Your task to perform on an android device: Search for bose quietcomfort 35 on ebay.com, select the first entry, add it to the cart, then select checkout. Image 0: 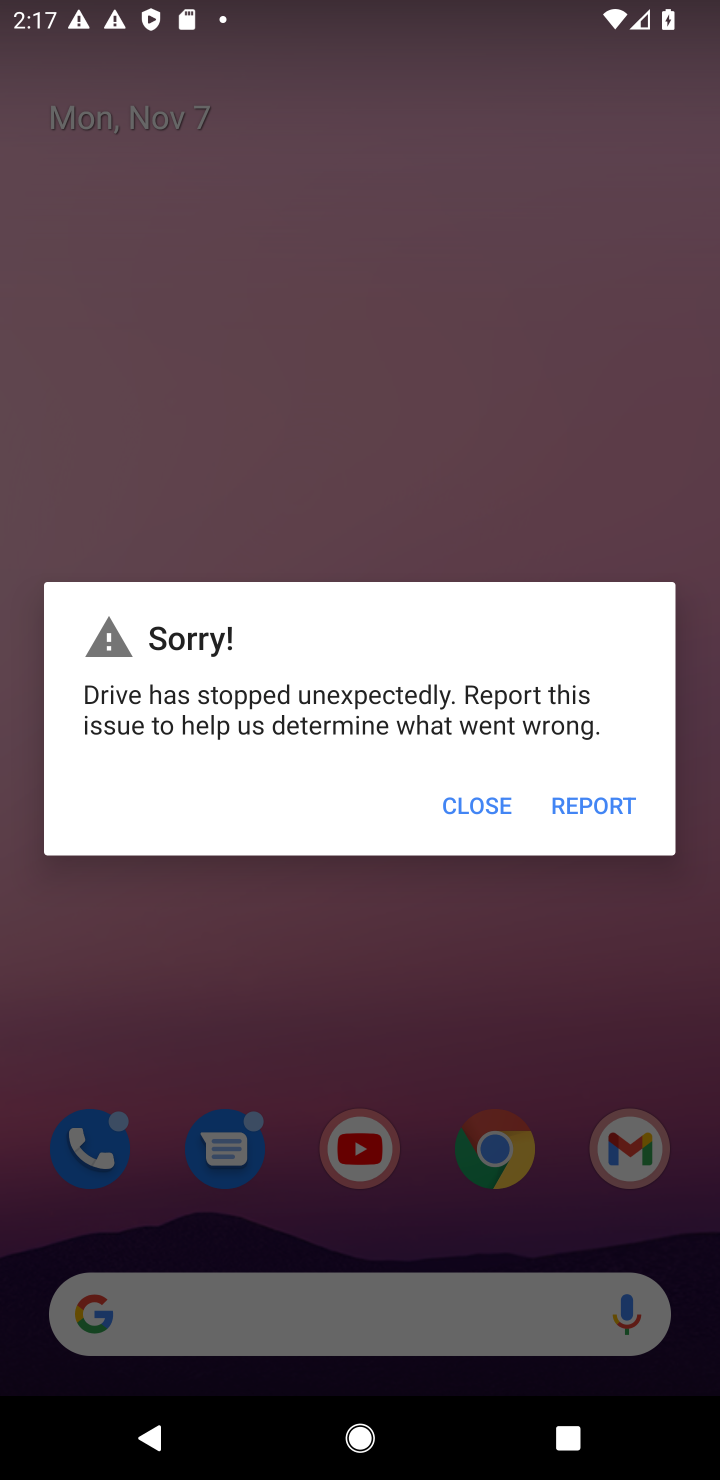
Step 0: click (468, 799)
Your task to perform on an android device: Search for bose quietcomfort 35 on ebay.com, select the first entry, add it to the cart, then select checkout. Image 1: 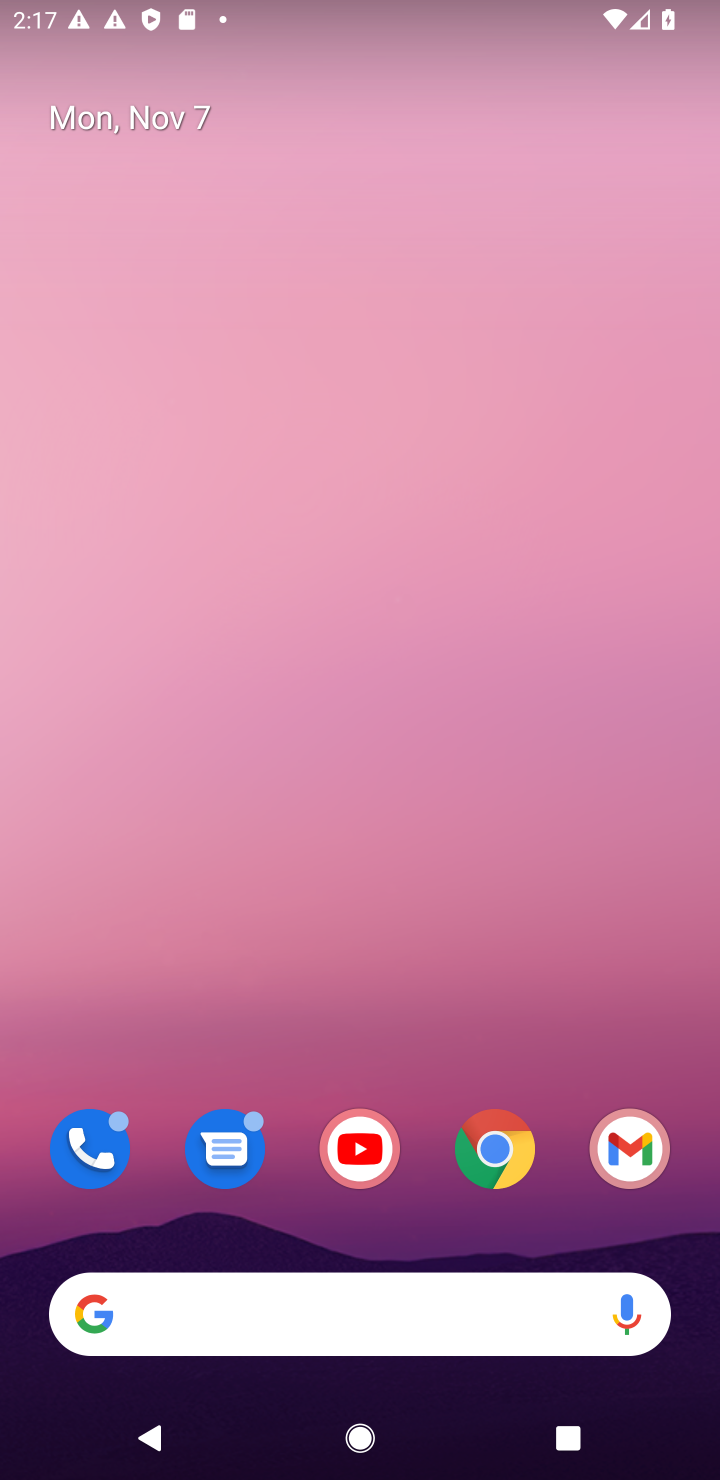
Step 1: click (510, 1152)
Your task to perform on an android device: Search for bose quietcomfort 35 on ebay.com, select the first entry, add it to the cart, then select checkout. Image 2: 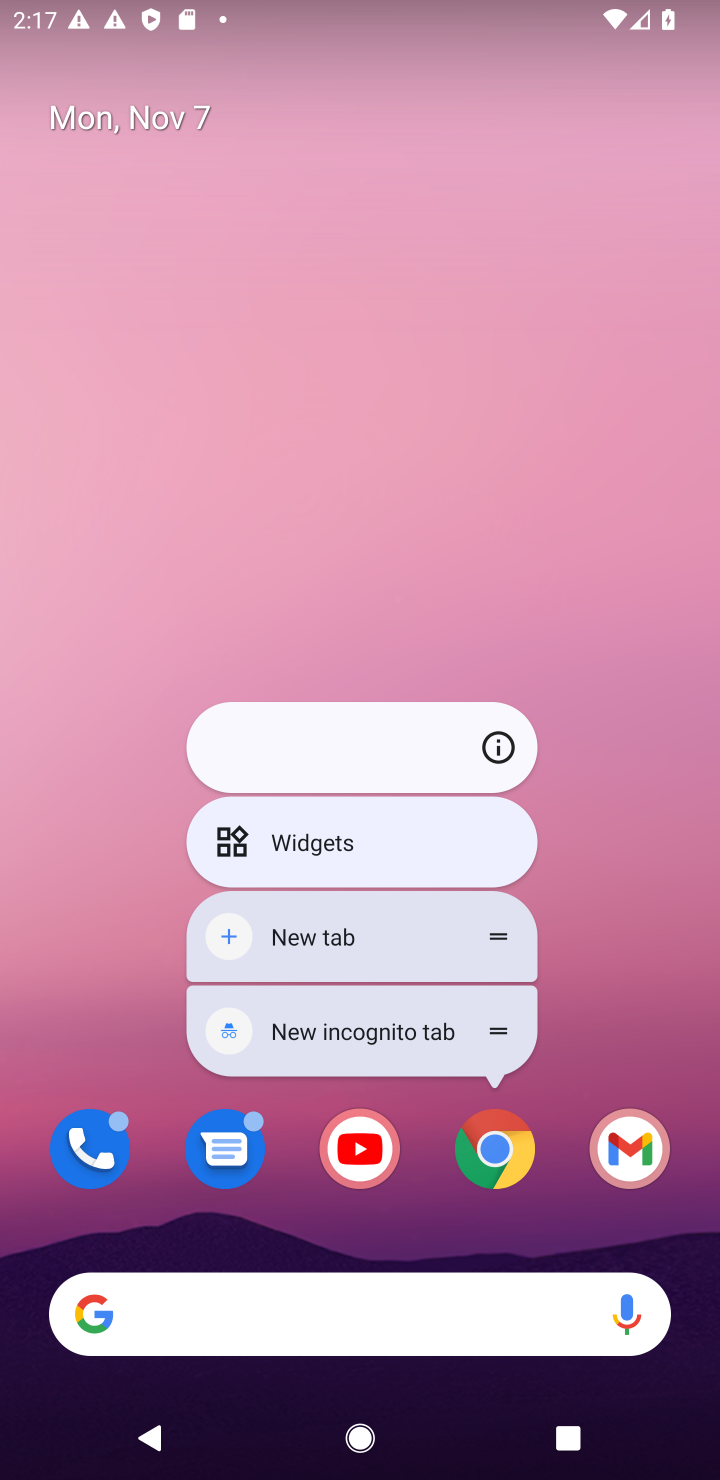
Step 2: click (502, 1149)
Your task to perform on an android device: Search for bose quietcomfort 35 on ebay.com, select the first entry, add it to the cart, then select checkout. Image 3: 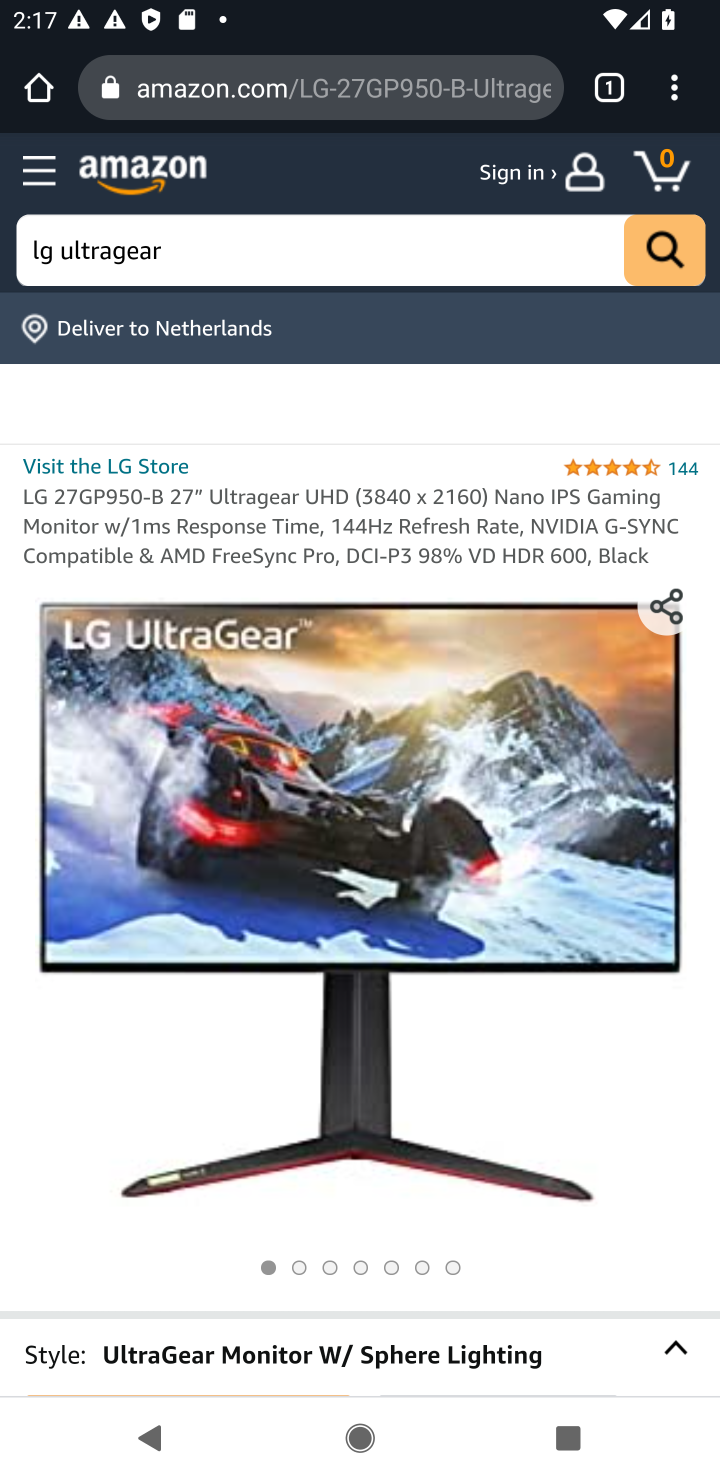
Step 3: click (266, 94)
Your task to perform on an android device: Search for bose quietcomfort 35 on ebay.com, select the first entry, add it to the cart, then select checkout. Image 4: 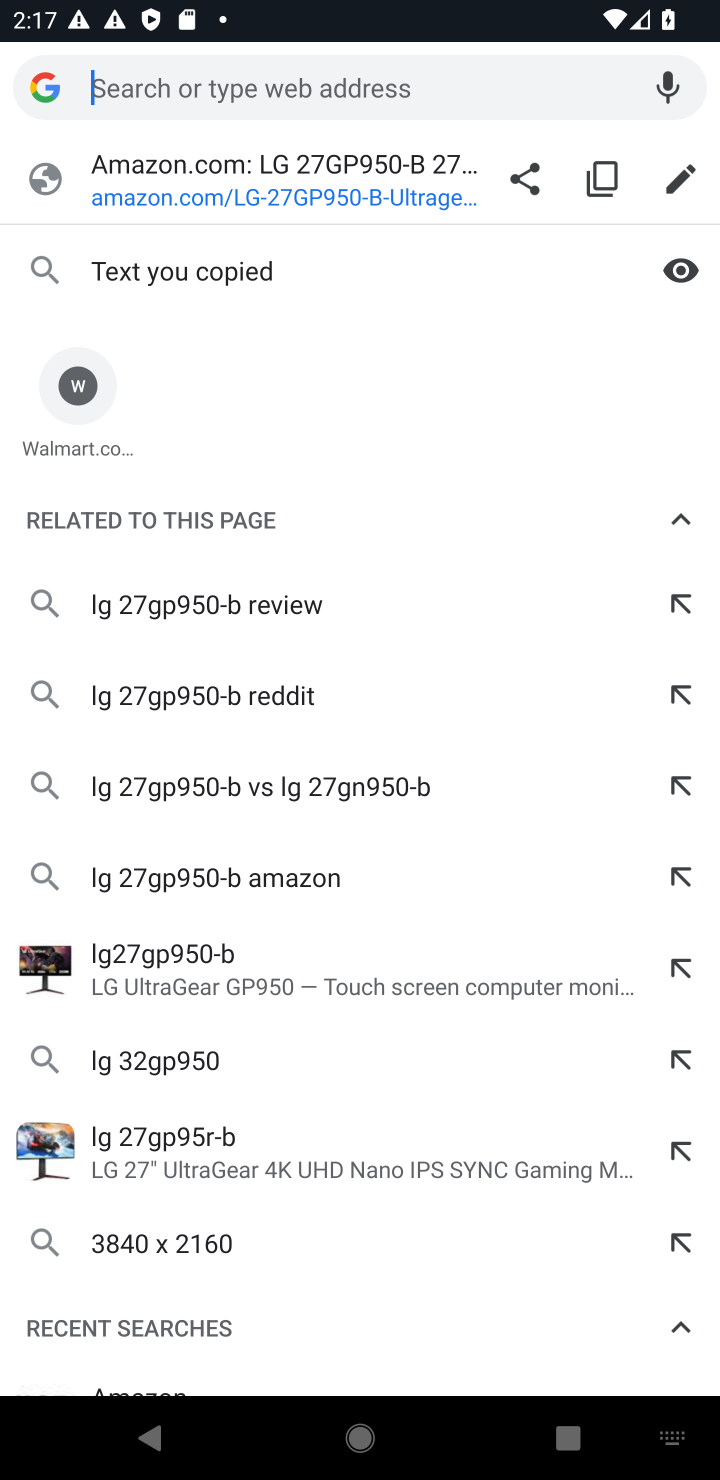
Step 4: type "ebay.com"
Your task to perform on an android device: Search for bose quietcomfort 35 on ebay.com, select the first entry, add it to the cart, then select checkout. Image 5: 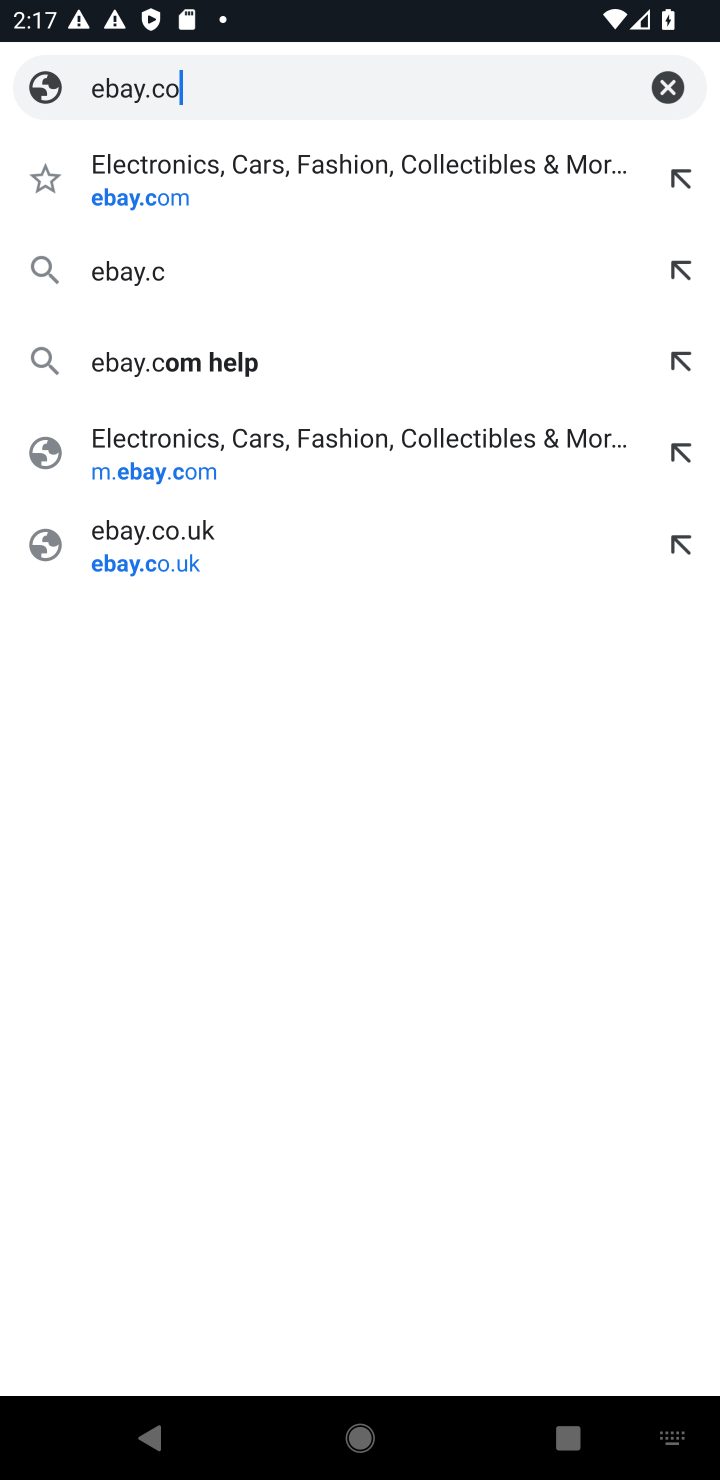
Step 5: type ""
Your task to perform on an android device: Search for bose quietcomfort 35 on ebay.com, select the first entry, add it to the cart, then select checkout. Image 6: 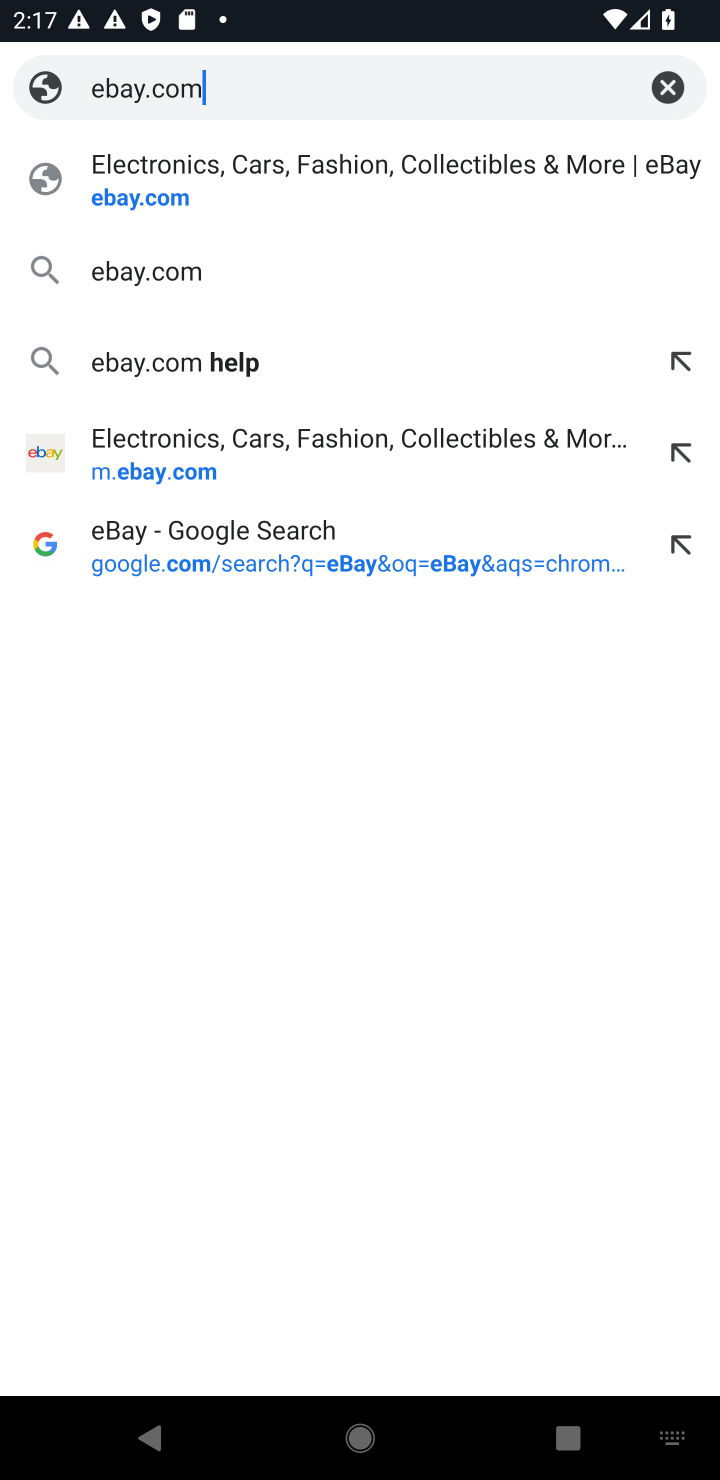
Step 6: click (155, 427)
Your task to perform on an android device: Search for bose quietcomfort 35 on ebay.com, select the first entry, add it to the cart, then select checkout. Image 7: 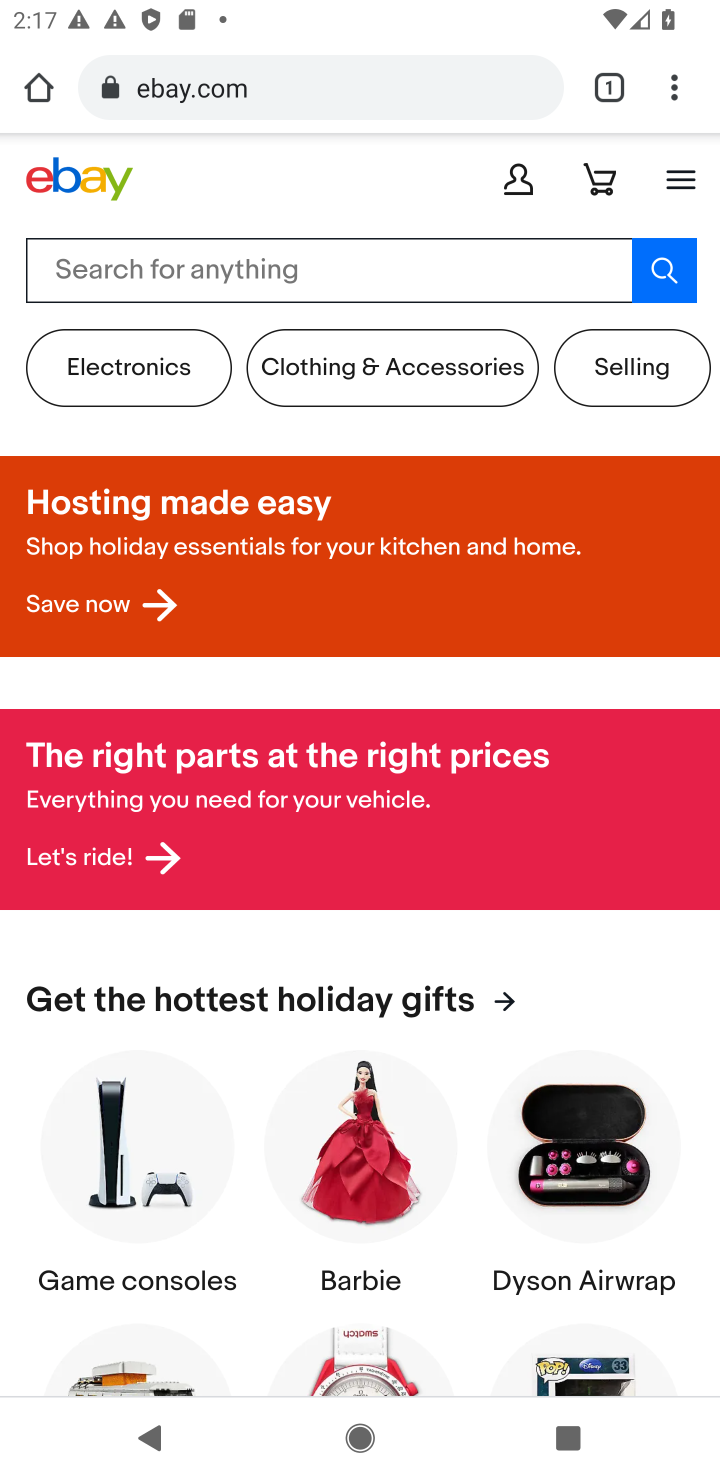
Step 7: click (178, 273)
Your task to perform on an android device: Search for bose quietcomfort 35 on ebay.com, select the first entry, add it to the cart, then select checkout. Image 8: 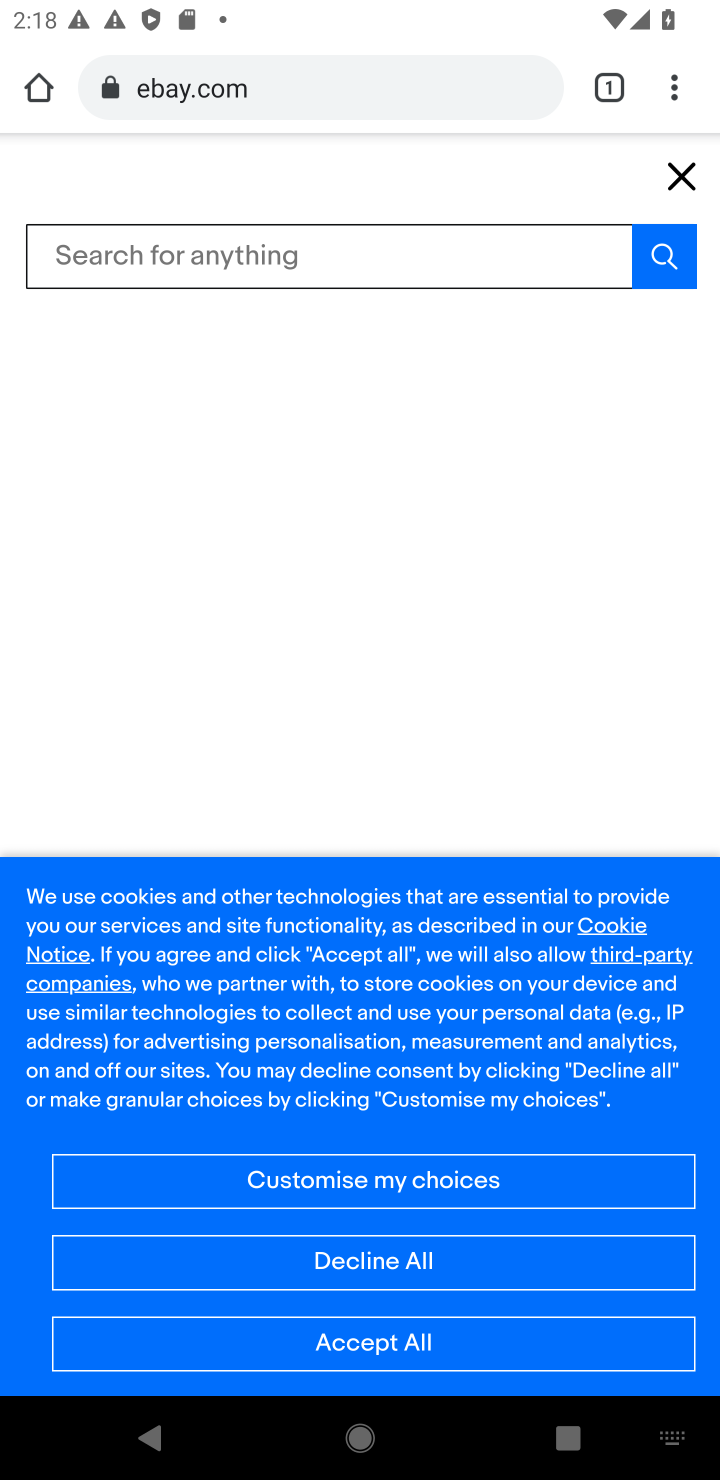
Step 8: type "bose quietcomfort 35 "
Your task to perform on an android device: Search for bose quietcomfort 35 on ebay.com, select the first entry, add it to the cart, then select checkout. Image 9: 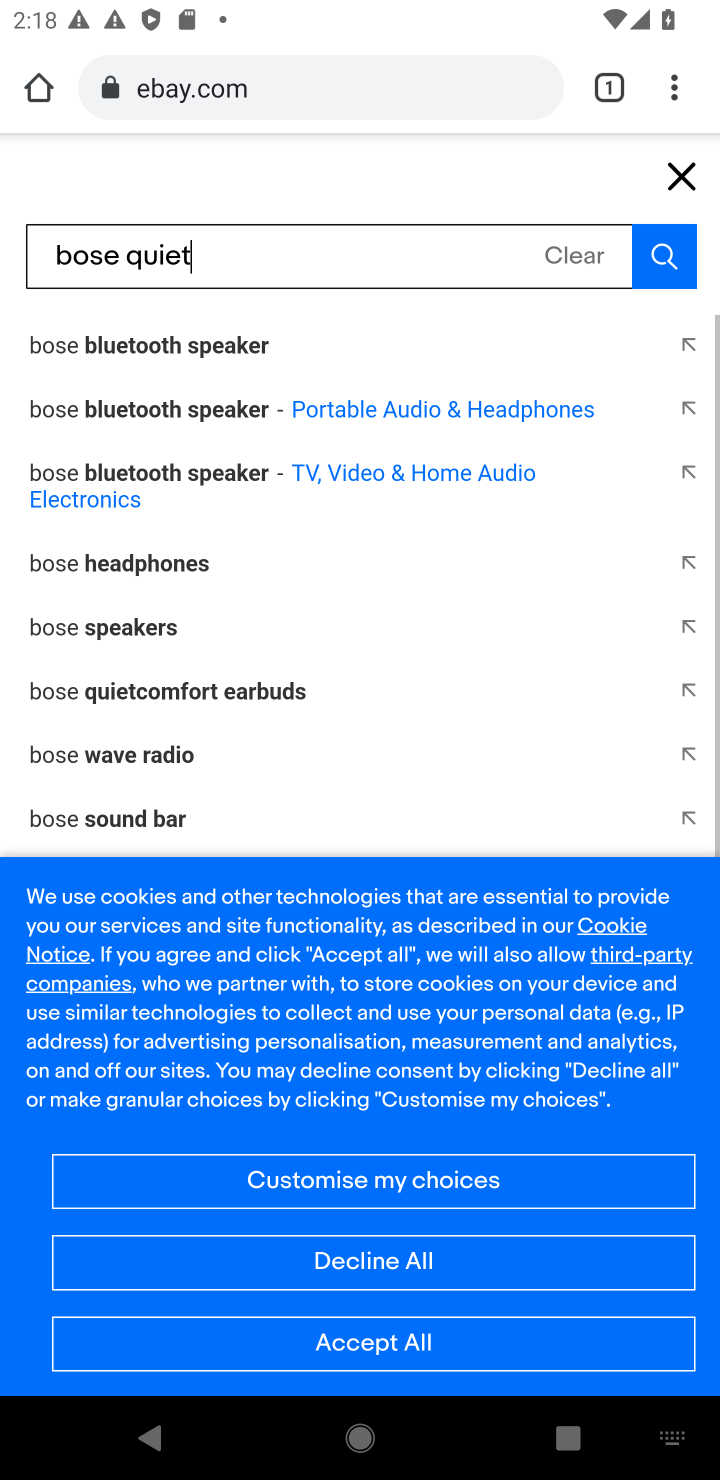
Step 9: type ""
Your task to perform on an android device: Search for bose quietcomfort 35 on ebay.com, select the first entry, add it to the cart, then select checkout. Image 10: 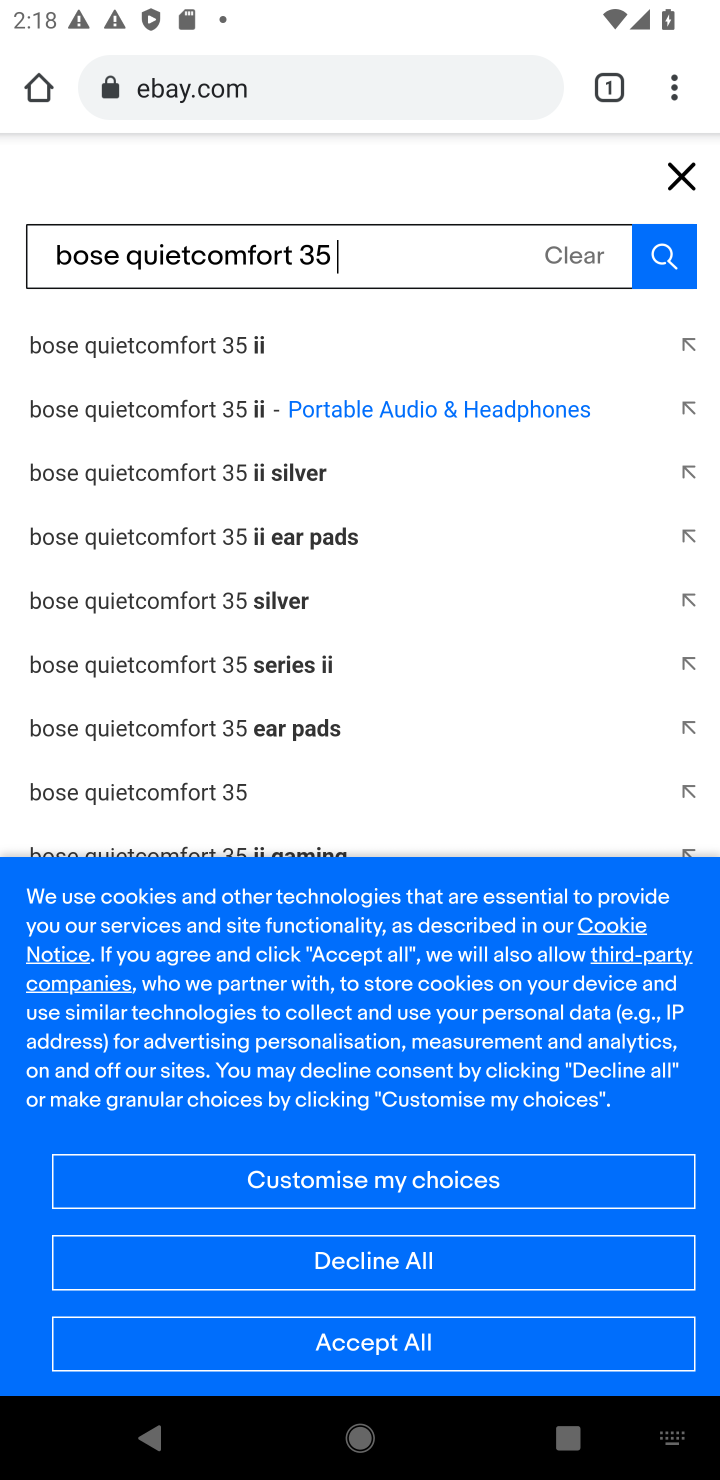
Step 10: click (137, 336)
Your task to perform on an android device: Search for bose quietcomfort 35 on ebay.com, select the first entry, add it to the cart, then select checkout. Image 11: 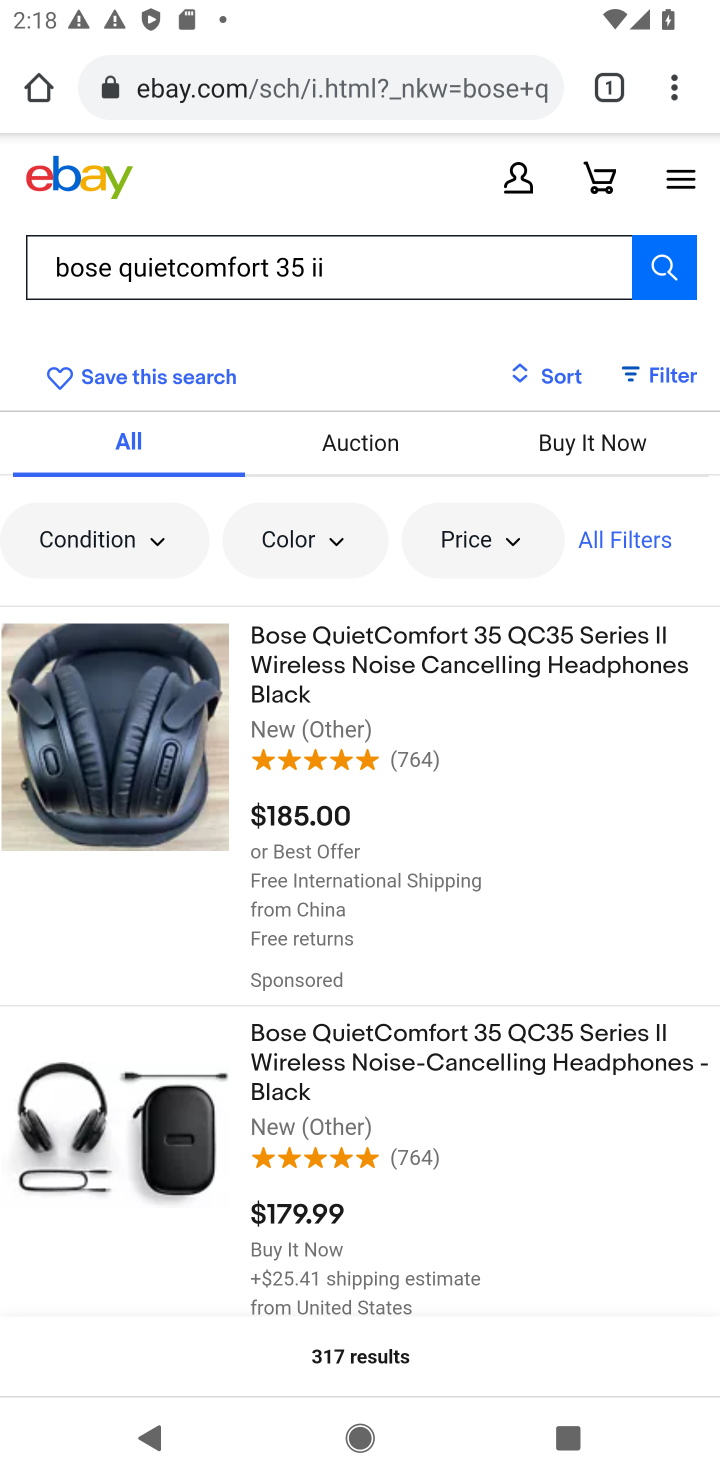
Step 11: drag from (496, 946) to (507, 628)
Your task to perform on an android device: Search for bose quietcomfort 35 on ebay.com, select the first entry, add it to the cart, then select checkout. Image 12: 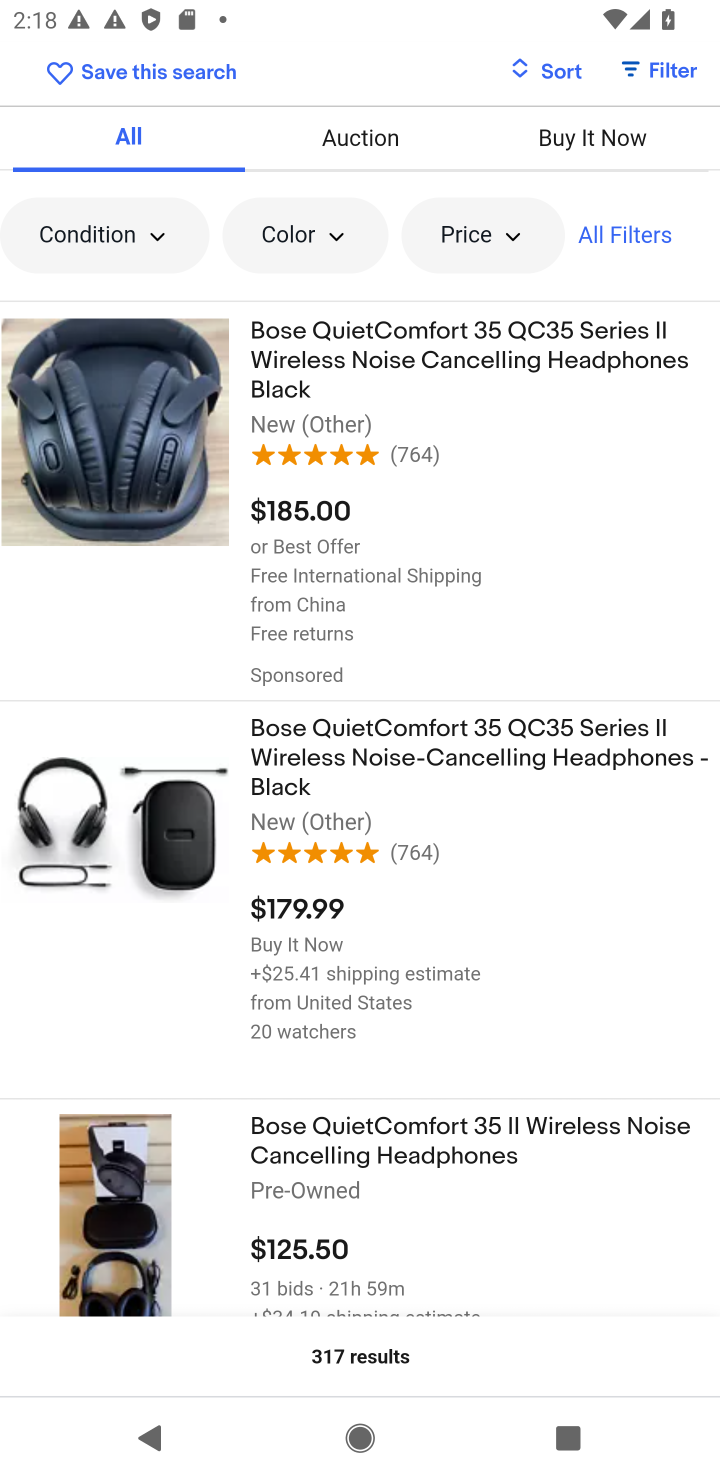
Step 12: click (347, 720)
Your task to perform on an android device: Search for bose quietcomfort 35 on ebay.com, select the first entry, add it to the cart, then select checkout. Image 13: 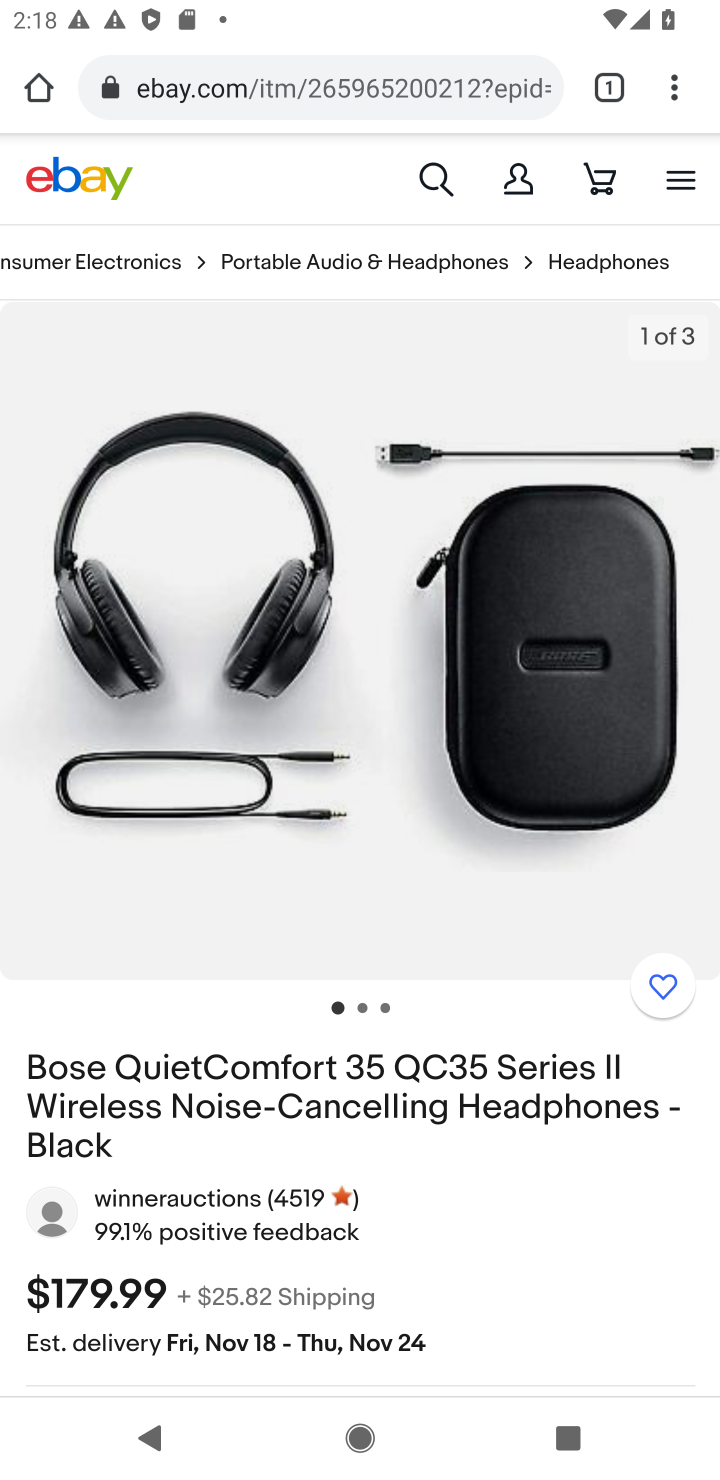
Step 13: drag from (552, 1202) to (562, 519)
Your task to perform on an android device: Search for bose quietcomfort 35 on ebay.com, select the first entry, add it to the cart, then select checkout. Image 14: 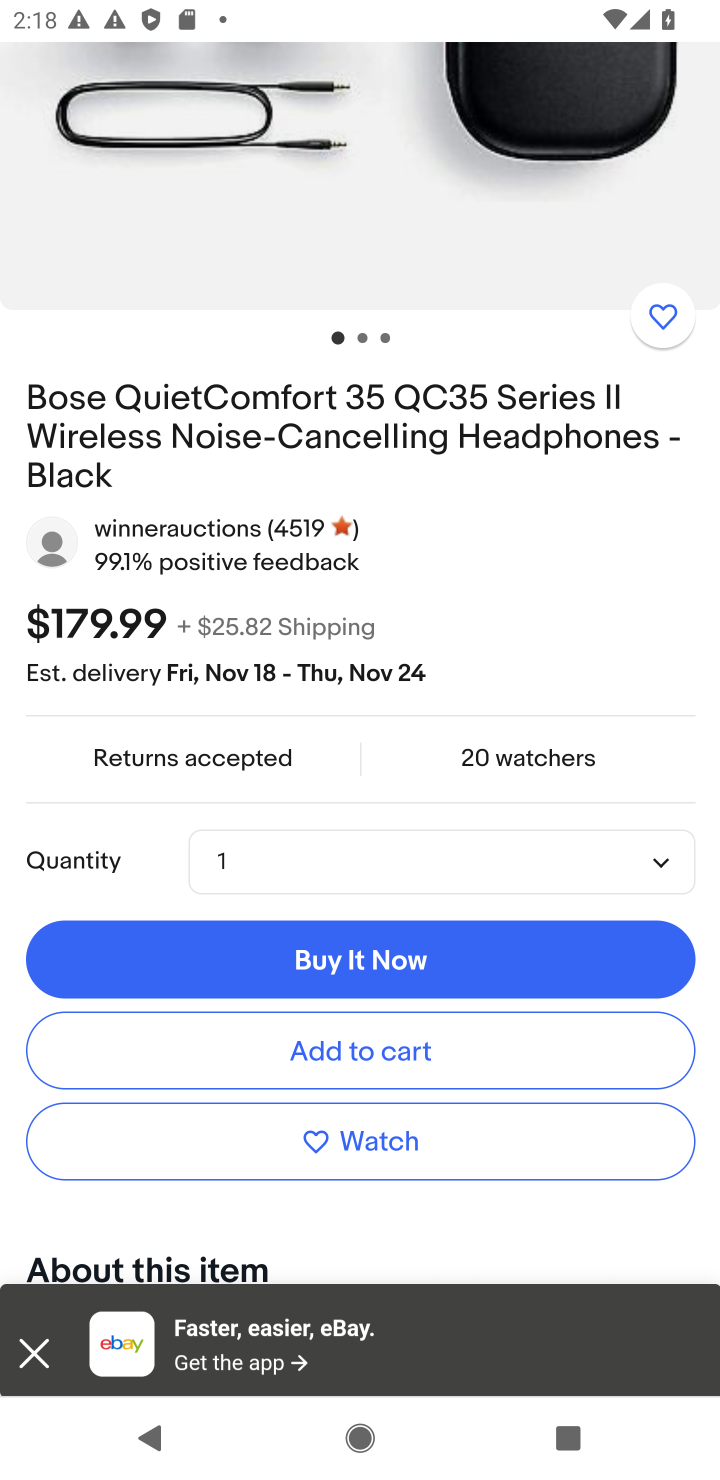
Step 14: click (376, 1059)
Your task to perform on an android device: Search for bose quietcomfort 35 on ebay.com, select the first entry, add it to the cart, then select checkout. Image 15: 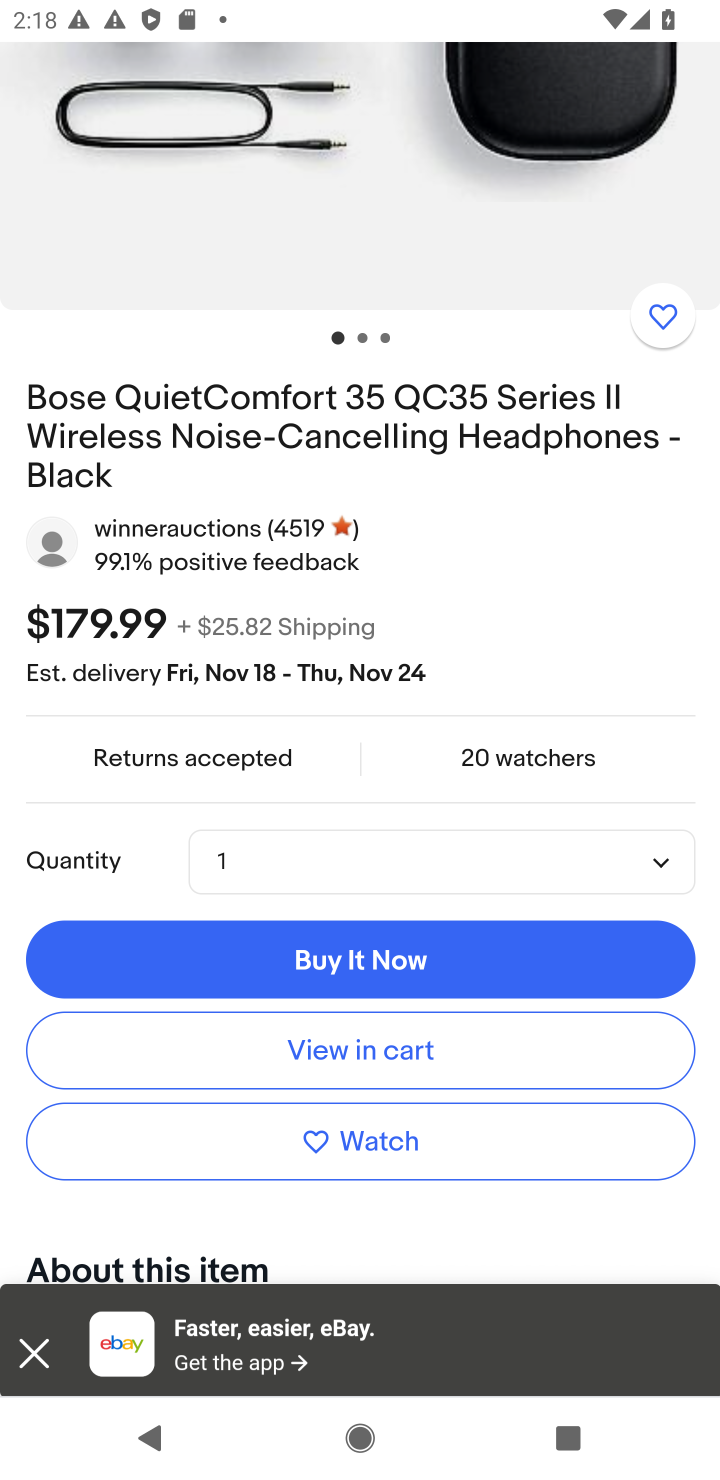
Step 15: click (376, 1052)
Your task to perform on an android device: Search for bose quietcomfort 35 on ebay.com, select the first entry, add it to the cart, then select checkout. Image 16: 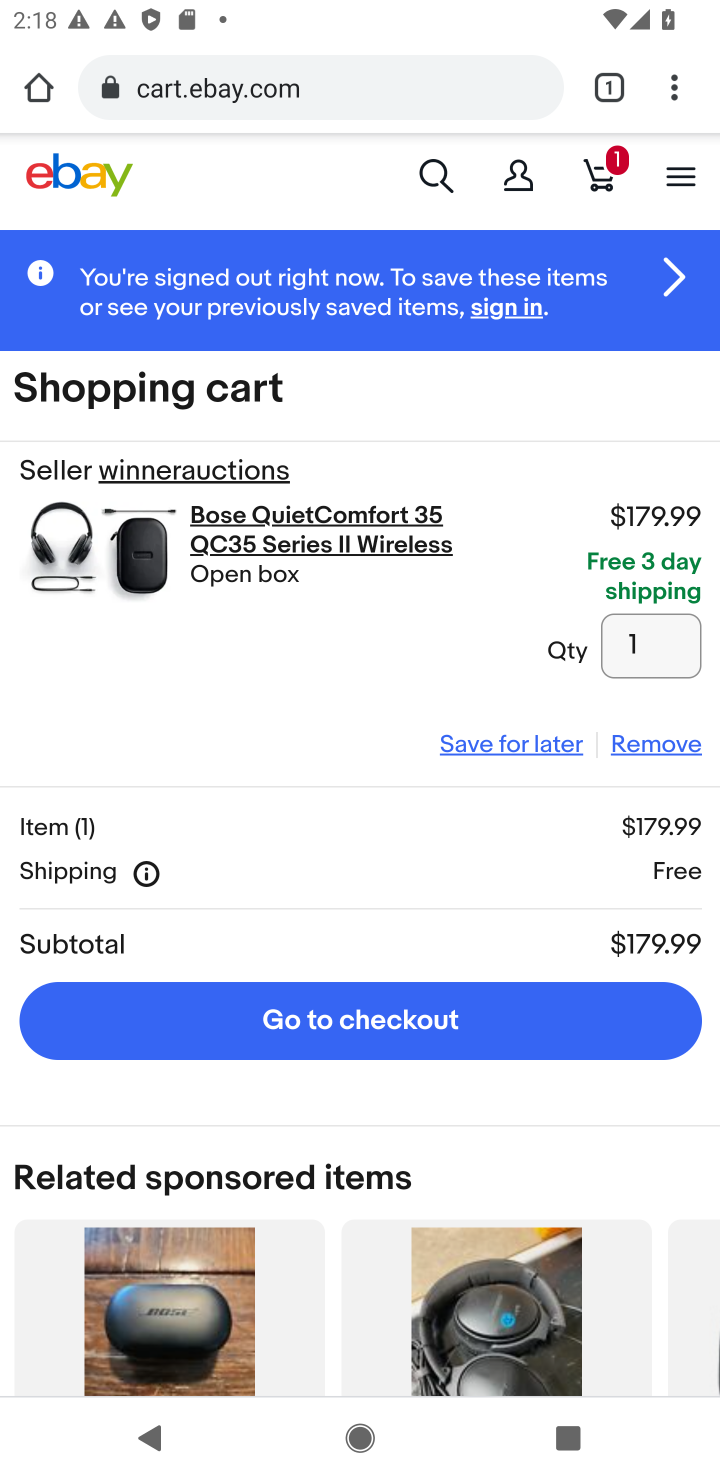
Step 16: drag from (394, 1121) to (378, 581)
Your task to perform on an android device: Search for bose quietcomfort 35 on ebay.com, select the first entry, add it to the cart, then select checkout. Image 17: 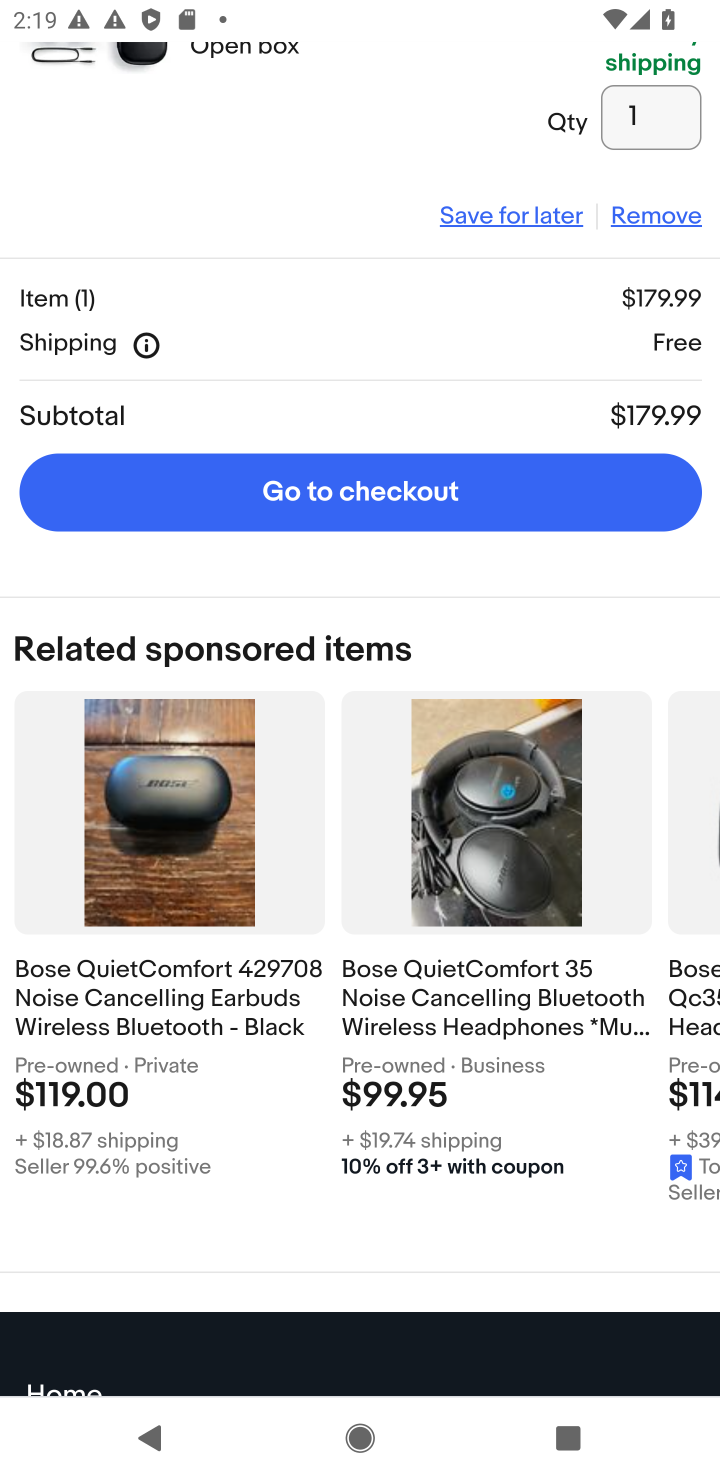
Step 17: drag from (395, 601) to (406, 1067)
Your task to perform on an android device: Search for bose quietcomfort 35 on ebay.com, select the first entry, add it to the cart, then select checkout. Image 18: 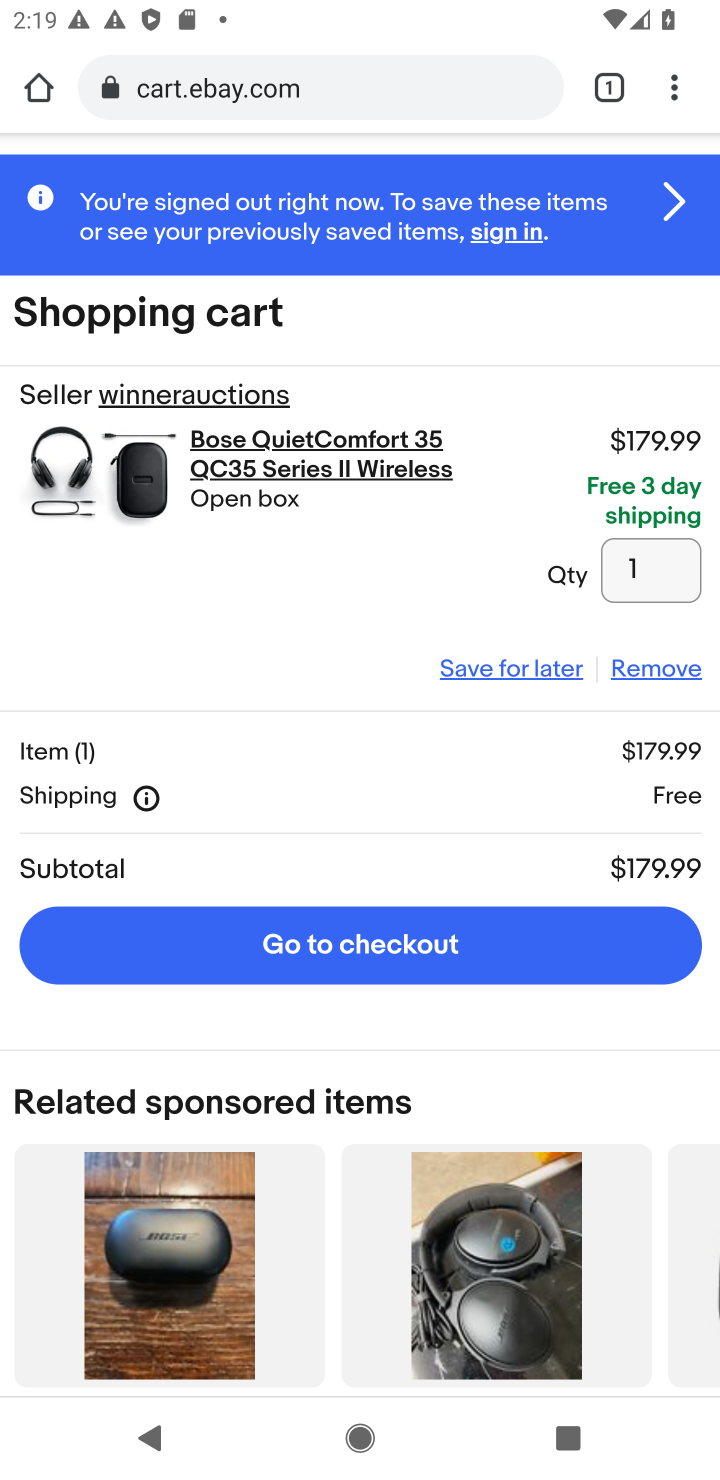
Step 18: click (380, 947)
Your task to perform on an android device: Search for bose quietcomfort 35 on ebay.com, select the first entry, add it to the cart, then select checkout. Image 19: 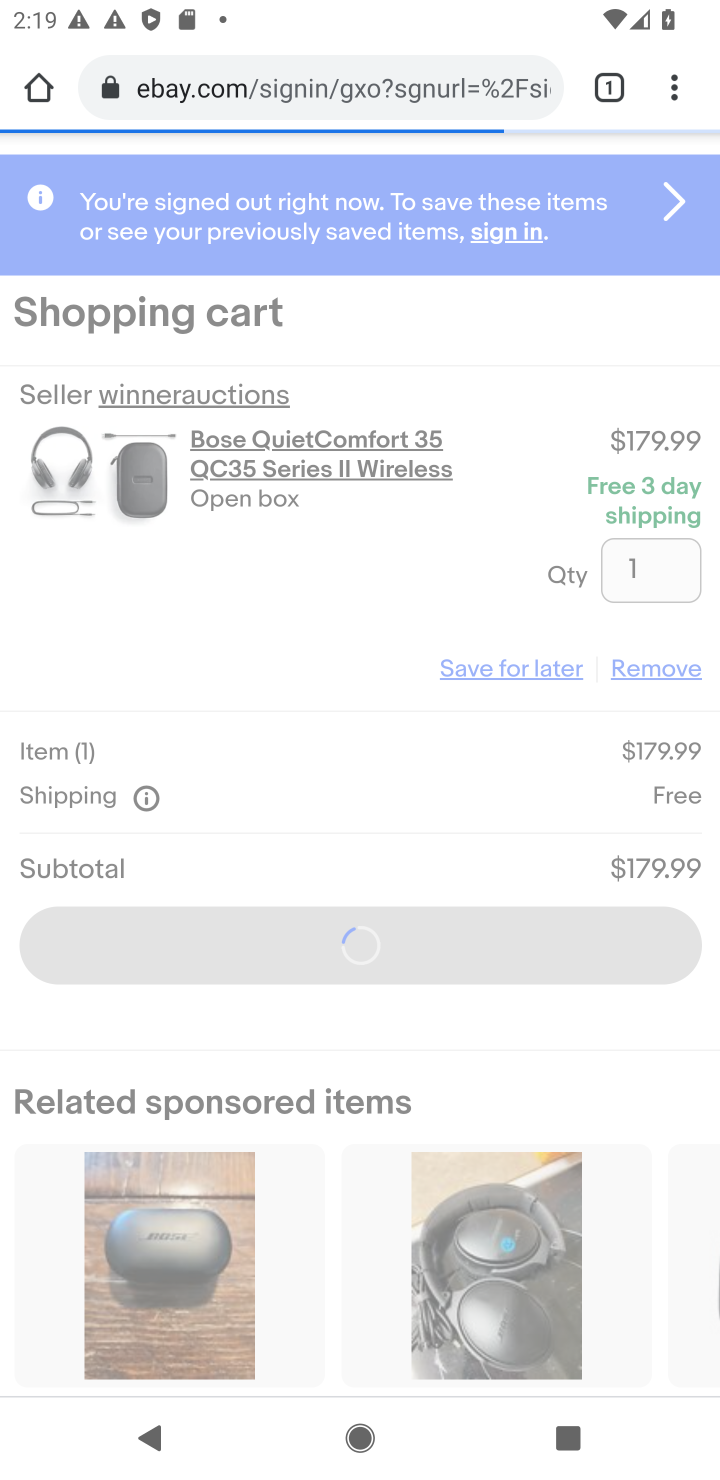
Step 19: task complete